Your task to perform on an android device: What's the weather going to be this weekend? Image 0: 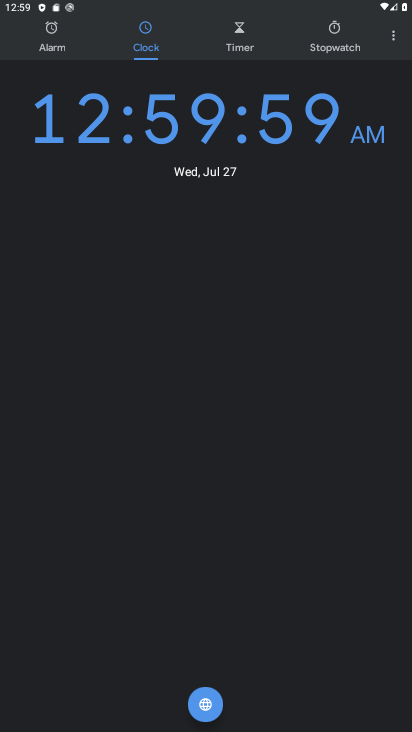
Step 0: press home button
Your task to perform on an android device: What's the weather going to be this weekend? Image 1: 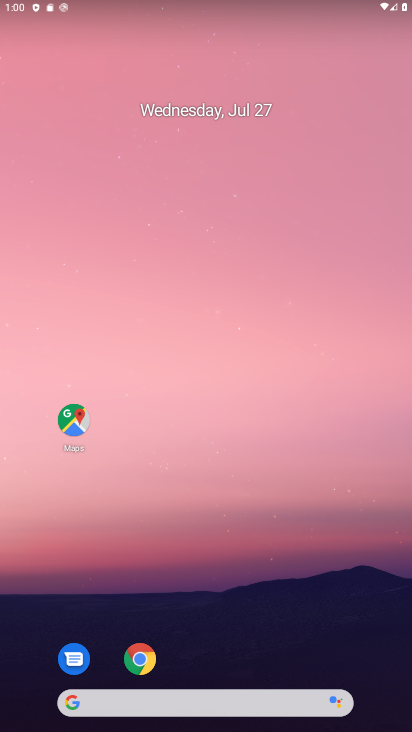
Step 1: click (132, 660)
Your task to perform on an android device: What's the weather going to be this weekend? Image 2: 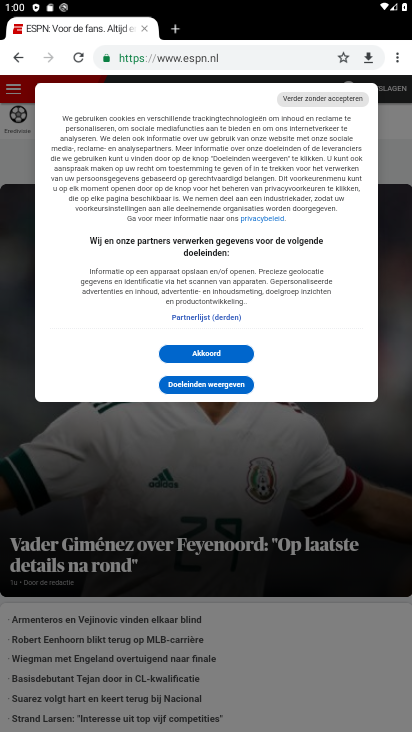
Step 2: click (243, 52)
Your task to perform on an android device: What's the weather going to be this weekend? Image 3: 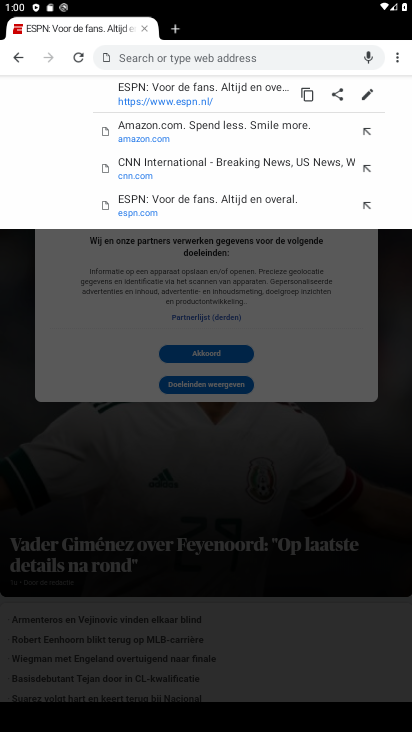
Step 3: type "weathher"
Your task to perform on an android device: What's the weather going to be this weekend? Image 4: 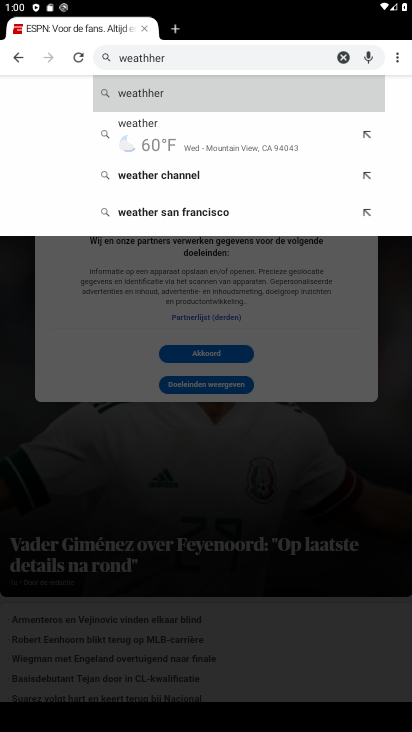
Step 4: type "'"
Your task to perform on an android device: What's the weather going to be this weekend? Image 5: 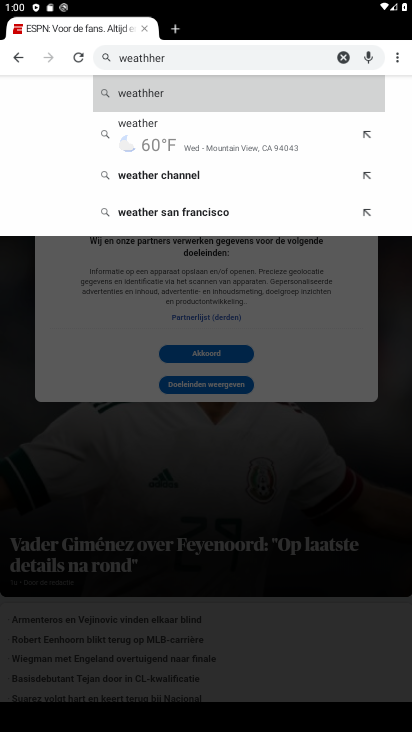
Step 5: click (185, 145)
Your task to perform on an android device: What's the weather going to be this weekend? Image 6: 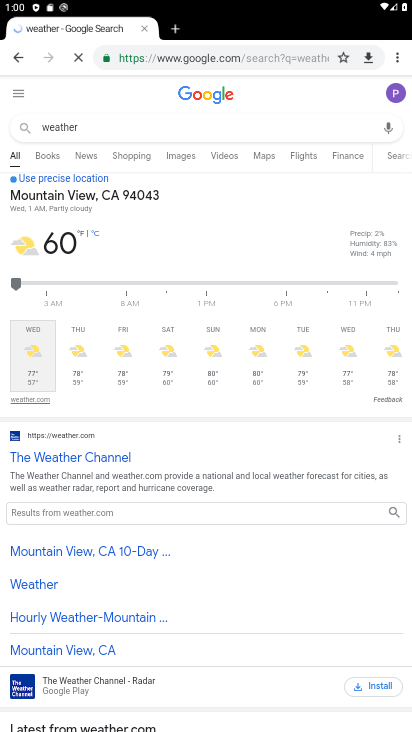
Step 6: click (177, 355)
Your task to perform on an android device: What's the weather going to be this weekend? Image 7: 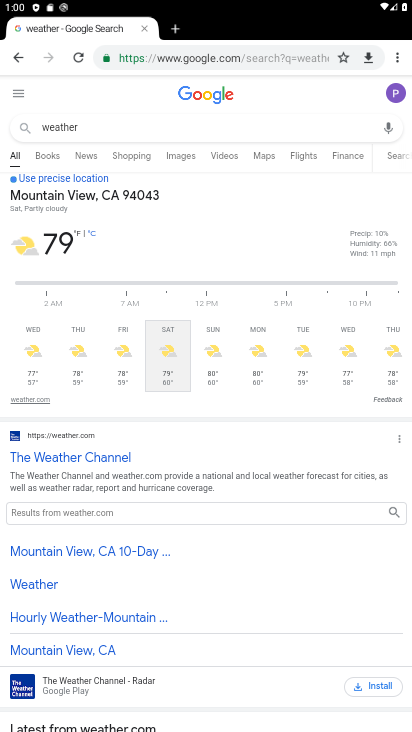
Step 7: task complete